Your task to perform on an android device: turn on javascript in the chrome app Image 0: 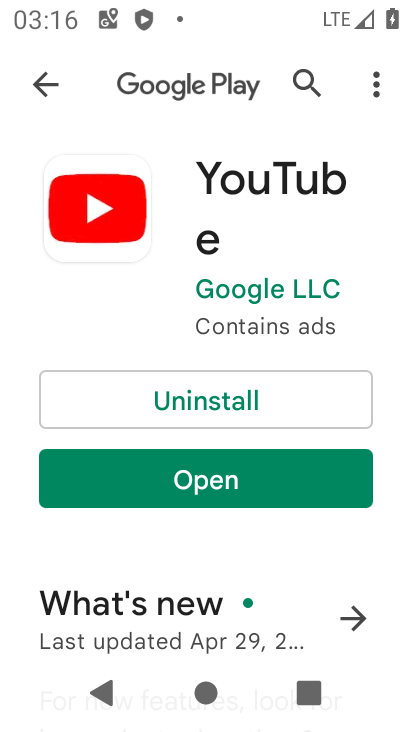
Step 0: press home button
Your task to perform on an android device: turn on javascript in the chrome app Image 1: 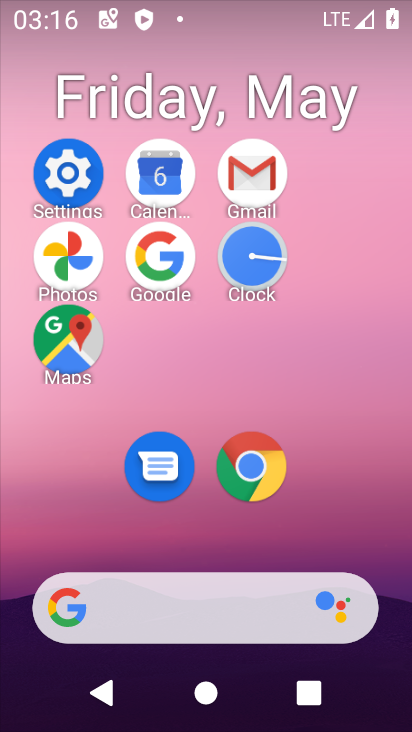
Step 1: click (259, 453)
Your task to perform on an android device: turn on javascript in the chrome app Image 2: 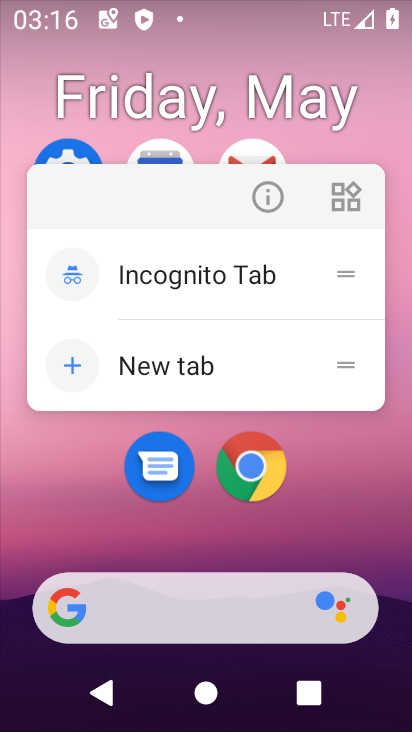
Step 2: click (259, 453)
Your task to perform on an android device: turn on javascript in the chrome app Image 3: 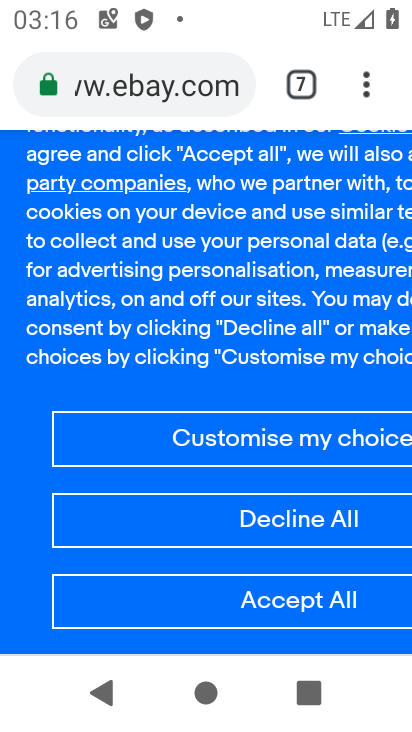
Step 3: click (380, 89)
Your task to perform on an android device: turn on javascript in the chrome app Image 4: 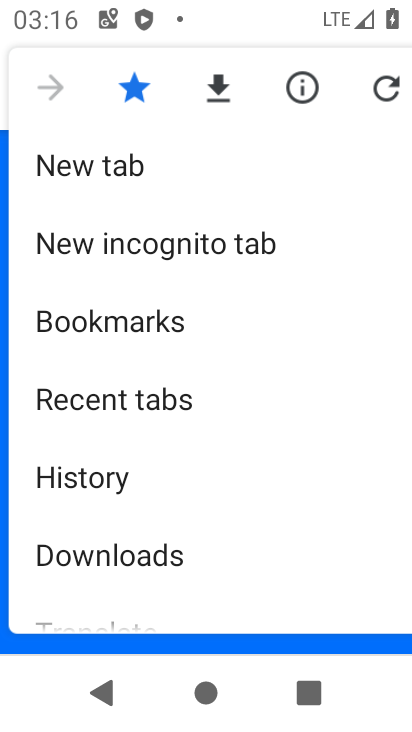
Step 4: drag from (269, 433) to (327, 112)
Your task to perform on an android device: turn on javascript in the chrome app Image 5: 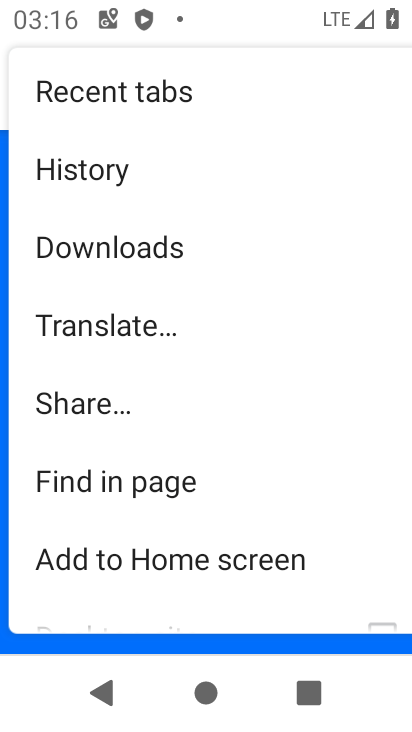
Step 5: drag from (248, 436) to (280, 148)
Your task to perform on an android device: turn on javascript in the chrome app Image 6: 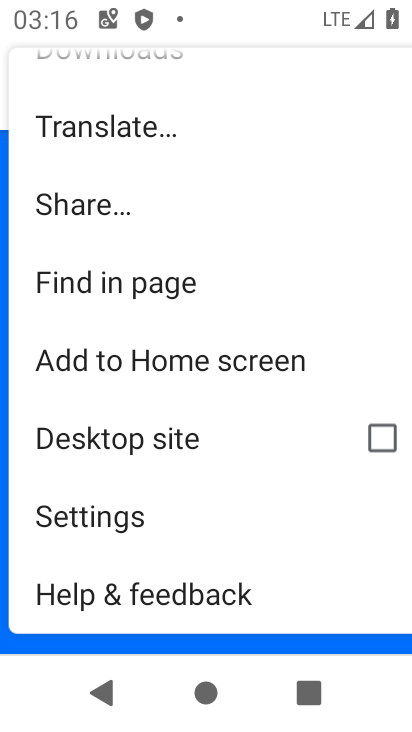
Step 6: click (169, 508)
Your task to perform on an android device: turn on javascript in the chrome app Image 7: 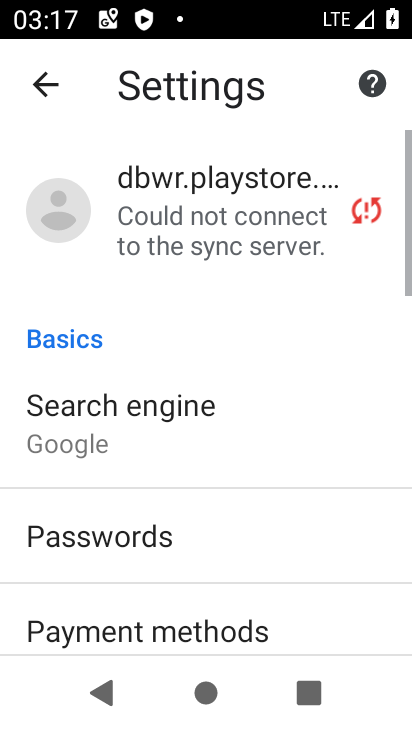
Step 7: drag from (163, 495) to (213, 216)
Your task to perform on an android device: turn on javascript in the chrome app Image 8: 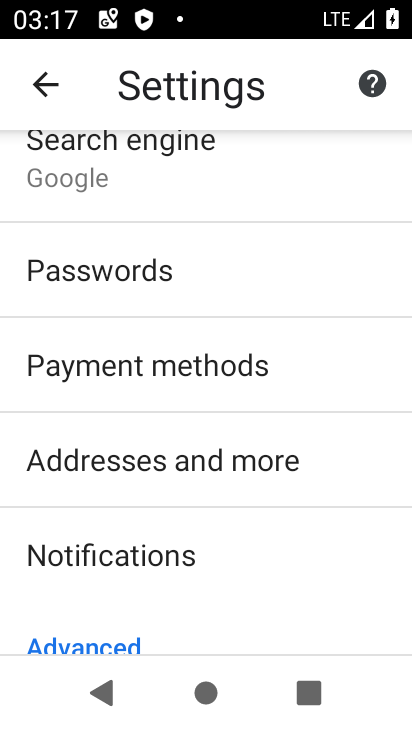
Step 8: drag from (238, 489) to (273, 192)
Your task to perform on an android device: turn on javascript in the chrome app Image 9: 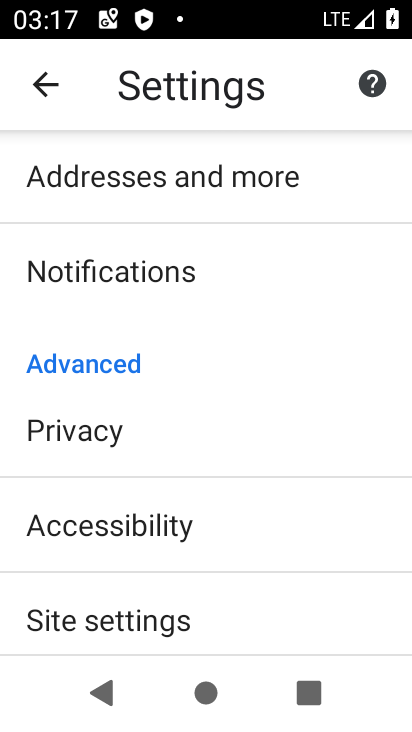
Step 9: drag from (205, 554) to (254, 269)
Your task to perform on an android device: turn on javascript in the chrome app Image 10: 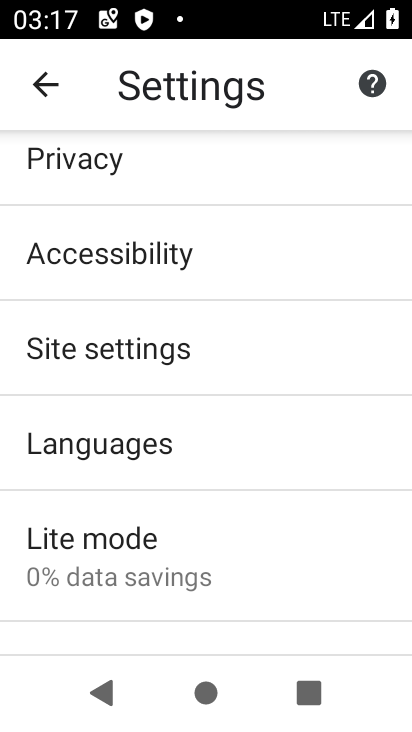
Step 10: click (240, 358)
Your task to perform on an android device: turn on javascript in the chrome app Image 11: 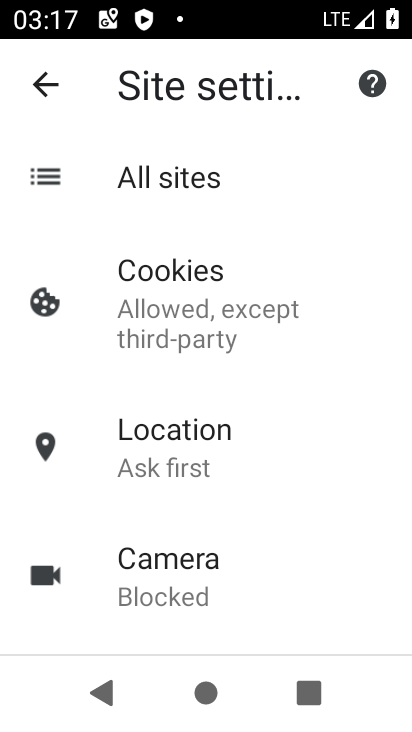
Step 11: drag from (251, 445) to (285, 236)
Your task to perform on an android device: turn on javascript in the chrome app Image 12: 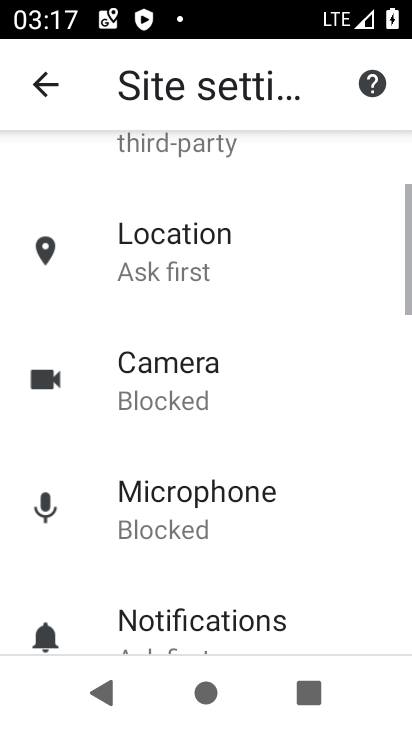
Step 12: drag from (272, 546) to (322, 246)
Your task to perform on an android device: turn on javascript in the chrome app Image 13: 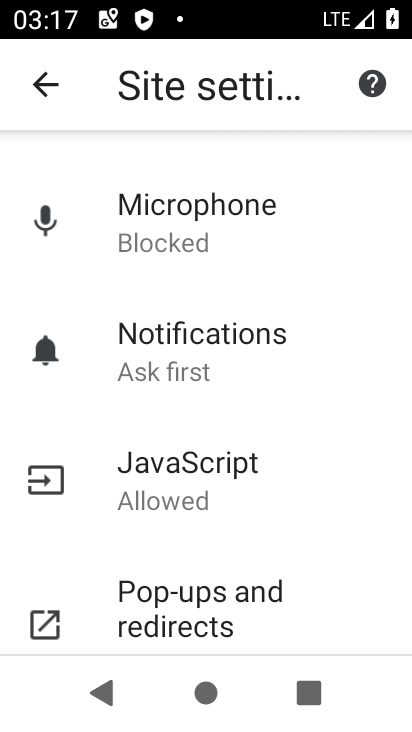
Step 13: click (279, 459)
Your task to perform on an android device: turn on javascript in the chrome app Image 14: 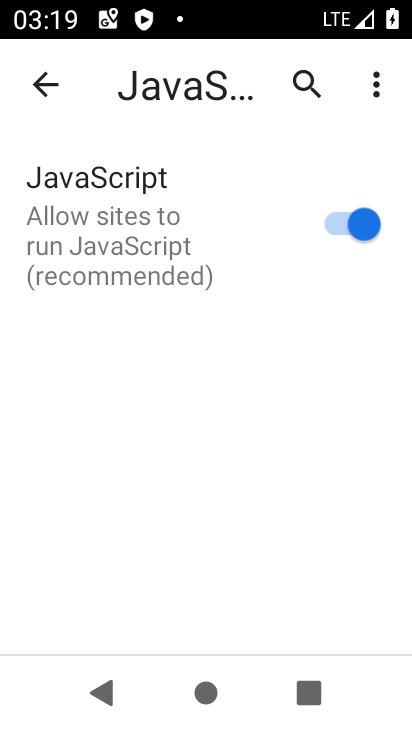
Step 14: task complete